Your task to perform on an android device: Search for flights from NYC to Barcelona Image 0: 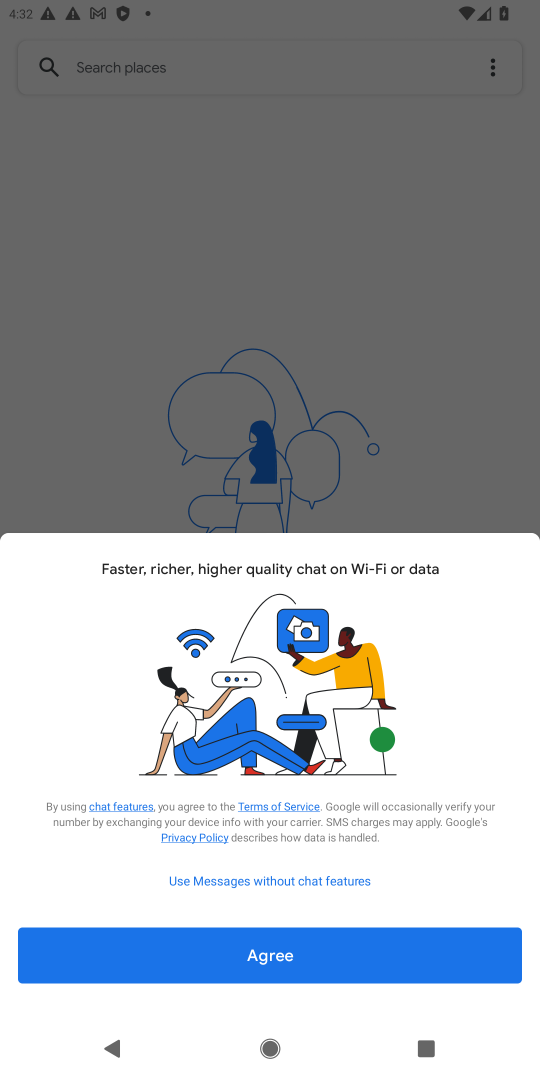
Step 0: press home button
Your task to perform on an android device: Search for flights from NYC to Barcelona Image 1: 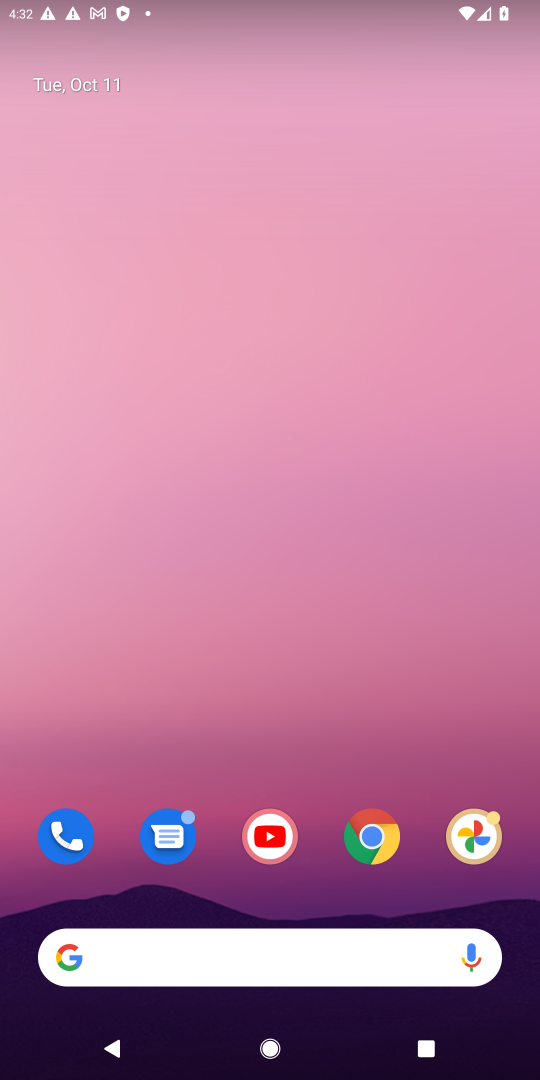
Step 1: click (377, 842)
Your task to perform on an android device: Search for flights from NYC to Barcelona Image 2: 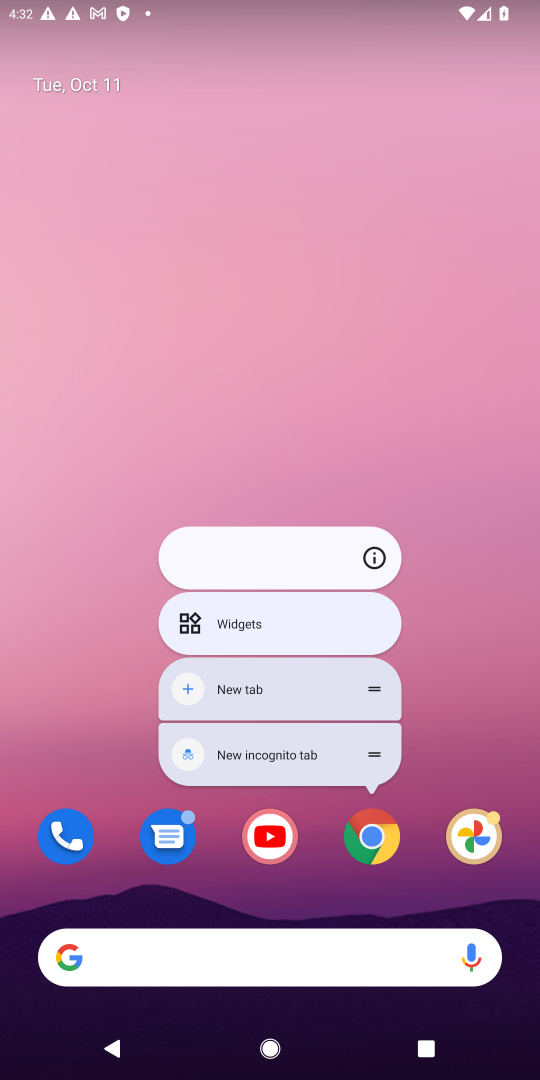
Step 2: click (372, 838)
Your task to perform on an android device: Search for flights from NYC to Barcelona Image 3: 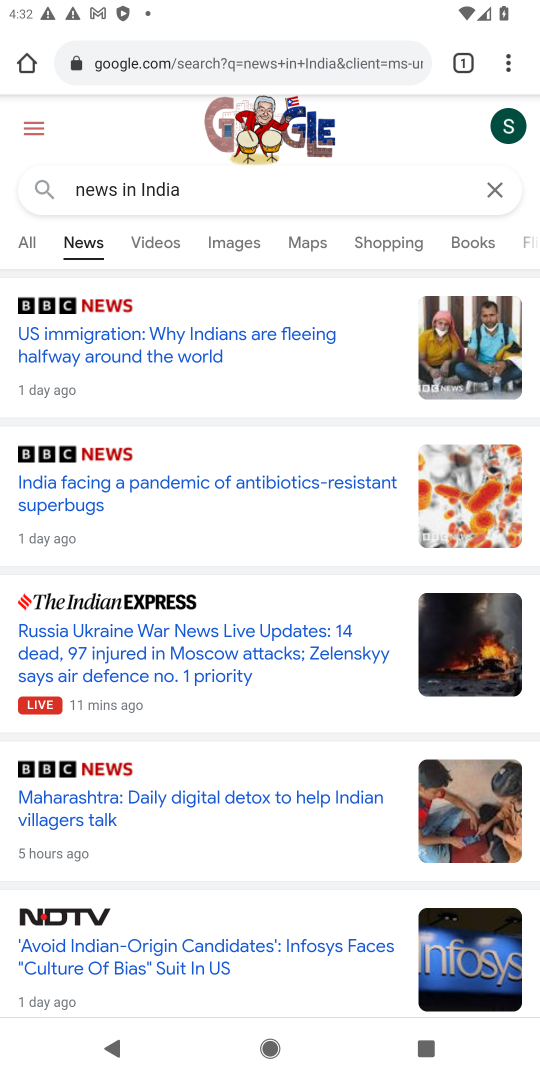
Step 3: click (339, 63)
Your task to perform on an android device: Search for flights from NYC to Barcelona Image 4: 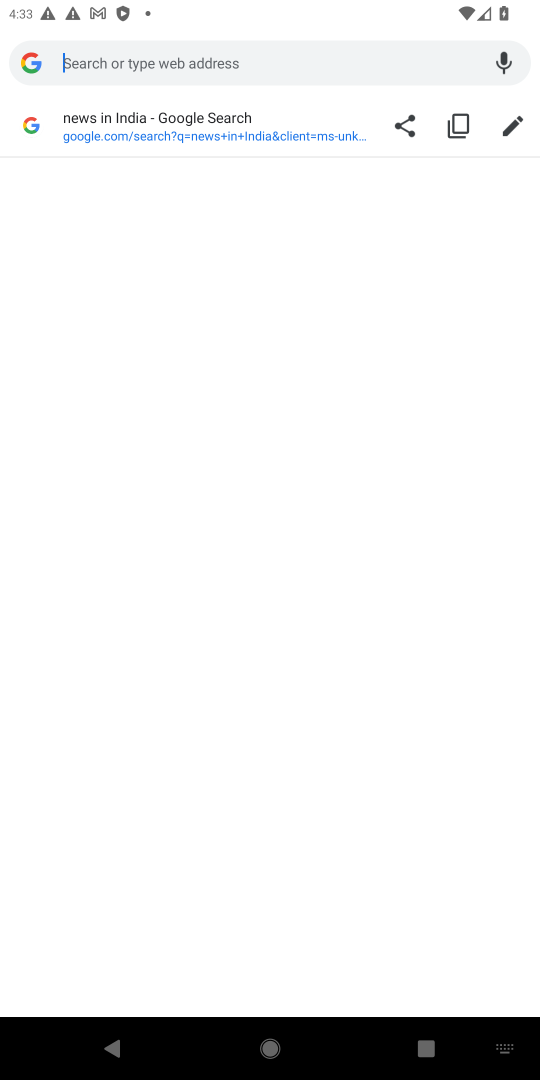
Step 4: type "flights from NYC to Barcelona"
Your task to perform on an android device: Search for flights from NYC to Barcelona Image 5: 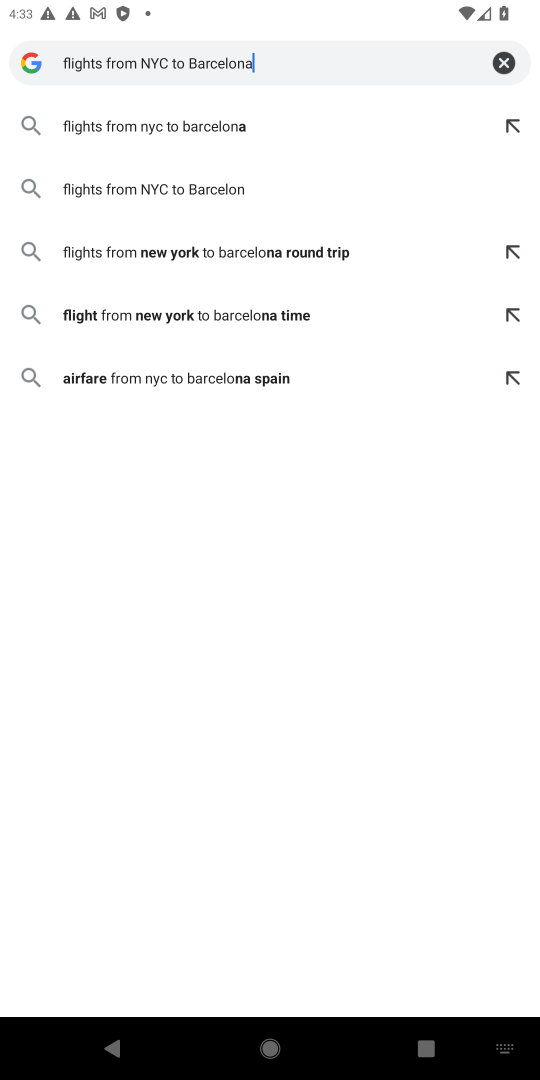
Step 5: press enter
Your task to perform on an android device: Search for flights from NYC to Barcelona Image 6: 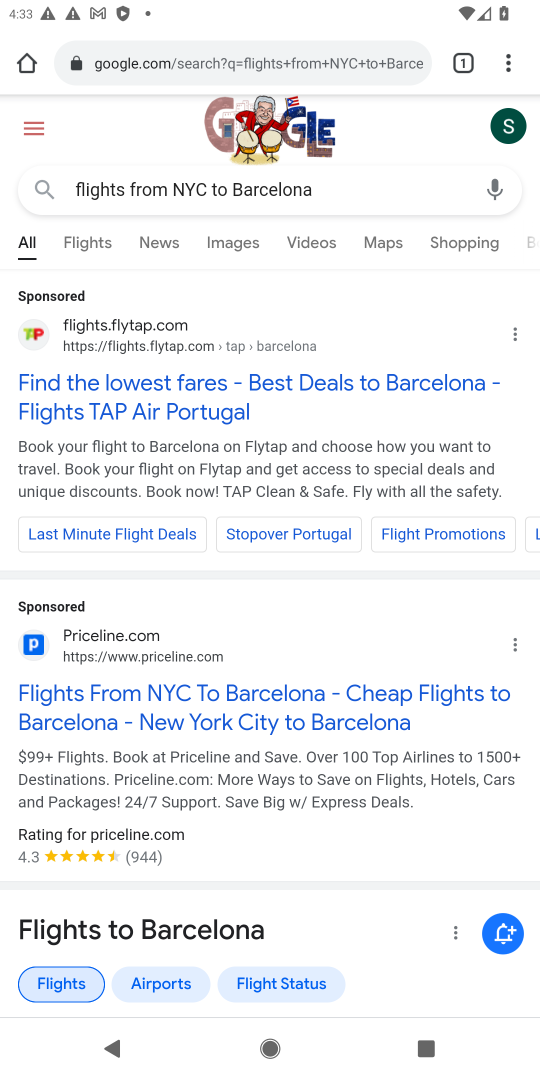
Step 6: drag from (143, 835) to (393, 29)
Your task to perform on an android device: Search for flights from NYC to Barcelona Image 7: 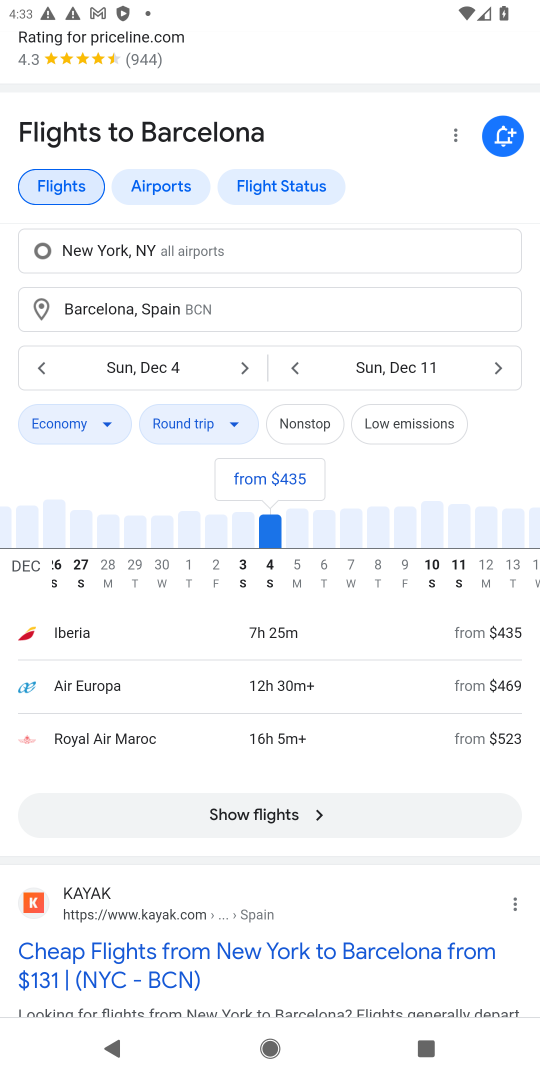
Step 7: click (269, 810)
Your task to perform on an android device: Search for flights from NYC to Barcelona Image 8: 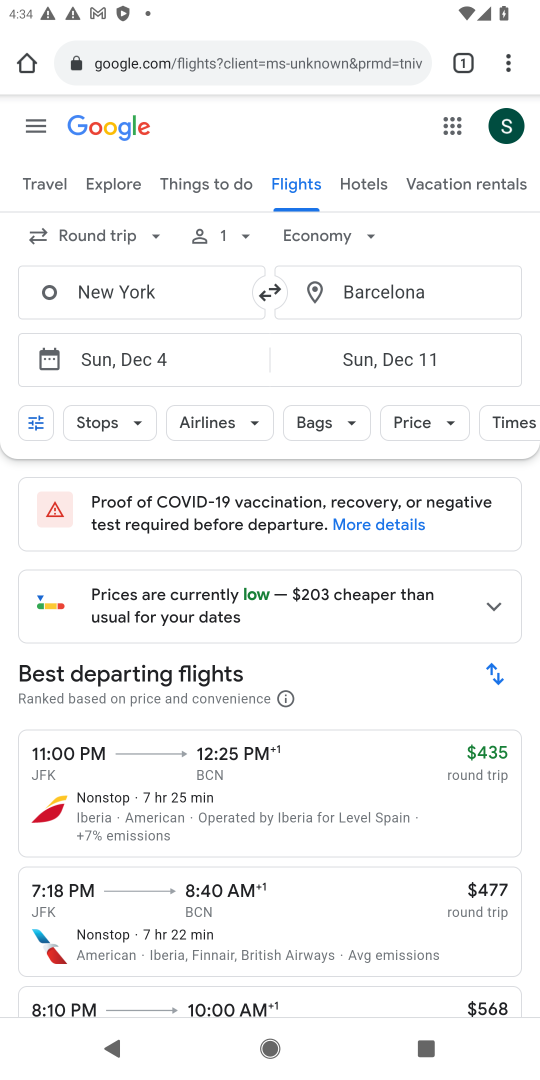
Step 8: task complete